Your task to perform on an android device: Open calendar and show me the second week of next month Image 0: 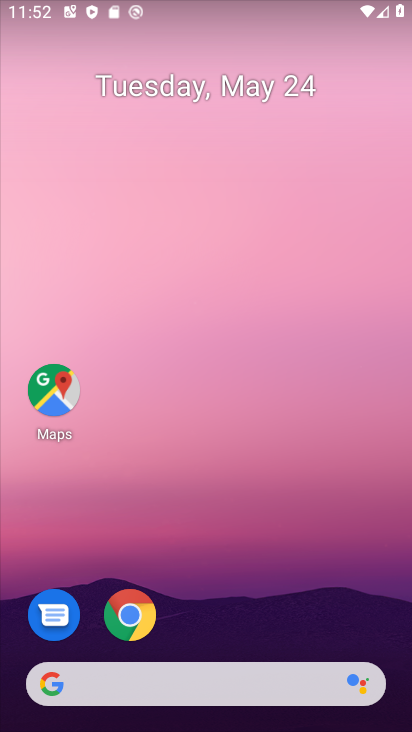
Step 0: drag from (261, 600) to (223, 201)
Your task to perform on an android device: Open calendar and show me the second week of next month Image 1: 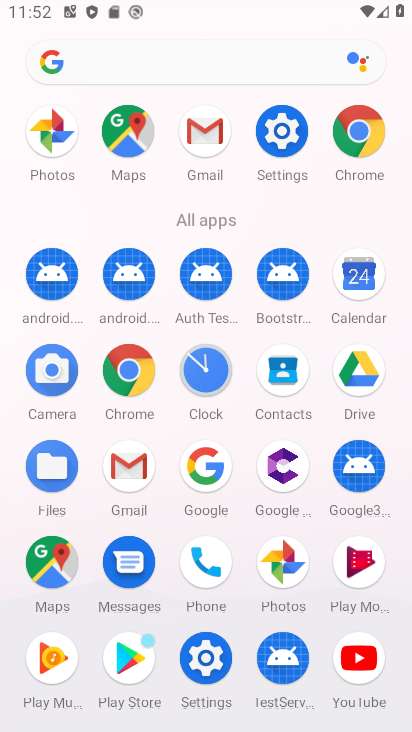
Step 1: click (362, 279)
Your task to perform on an android device: Open calendar and show me the second week of next month Image 2: 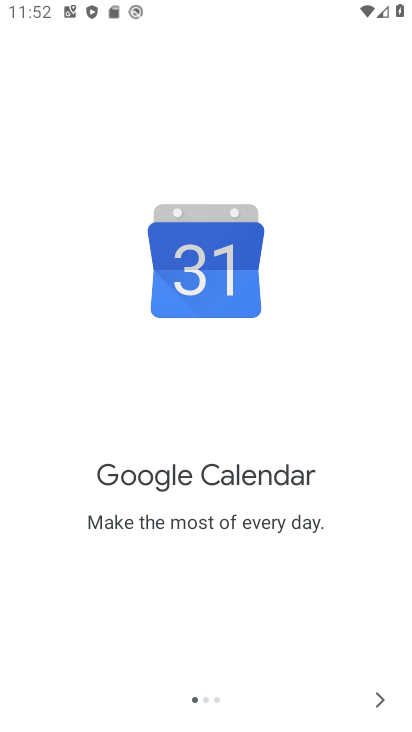
Step 2: click (384, 699)
Your task to perform on an android device: Open calendar and show me the second week of next month Image 3: 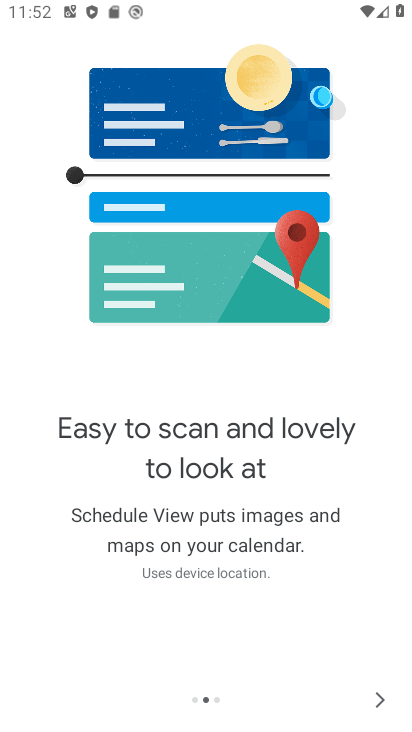
Step 3: click (384, 699)
Your task to perform on an android device: Open calendar and show me the second week of next month Image 4: 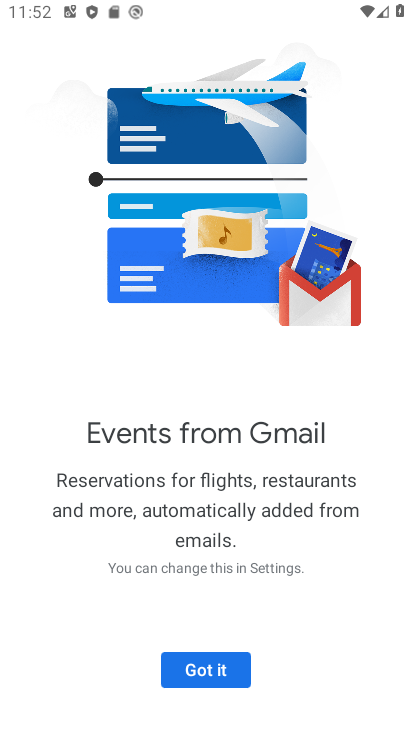
Step 4: click (202, 675)
Your task to perform on an android device: Open calendar and show me the second week of next month Image 5: 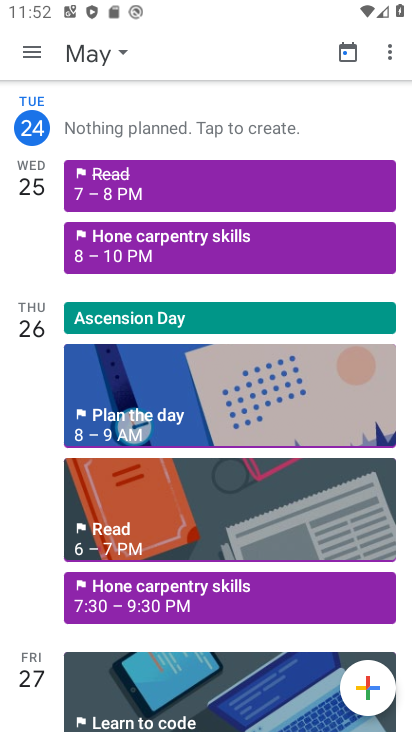
Step 5: click (120, 52)
Your task to perform on an android device: Open calendar and show me the second week of next month Image 6: 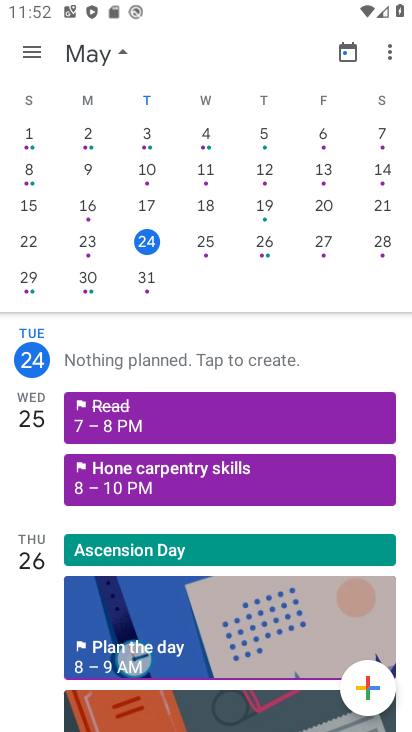
Step 6: drag from (361, 251) to (30, 271)
Your task to perform on an android device: Open calendar and show me the second week of next month Image 7: 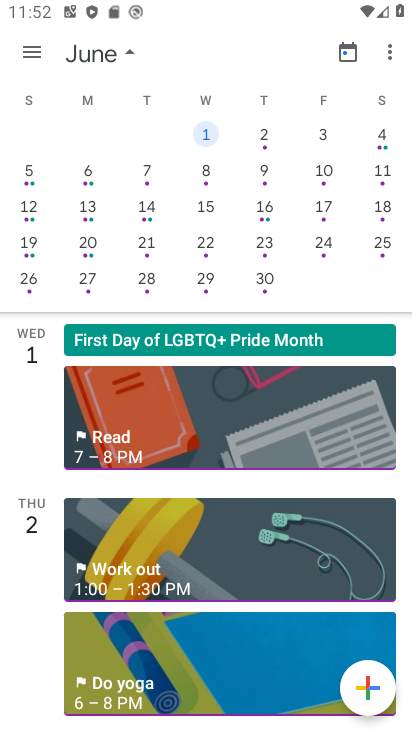
Step 7: click (89, 210)
Your task to perform on an android device: Open calendar and show me the second week of next month Image 8: 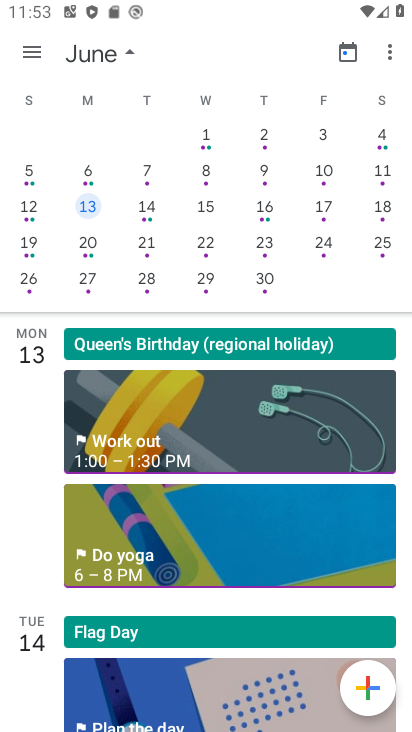
Step 8: click (39, 51)
Your task to perform on an android device: Open calendar and show me the second week of next month Image 9: 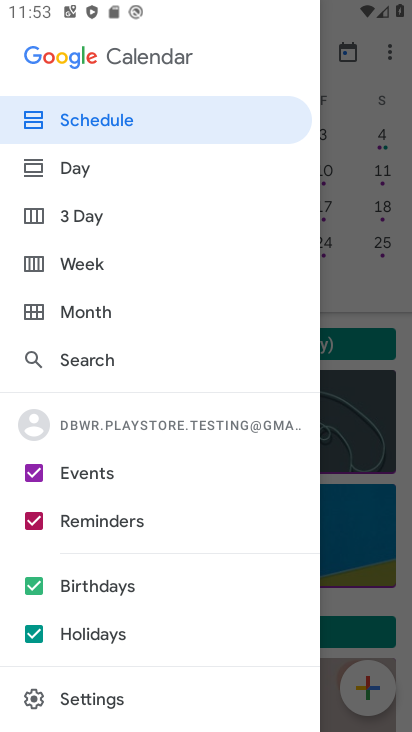
Step 9: click (89, 261)
Your task to perform on an android device: Open calendar and show me the second week of next month Image 10: 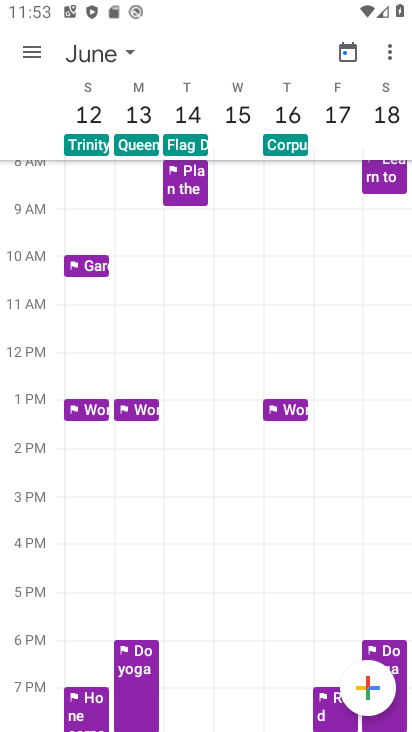
Step 10: task complete